Your task to perform on an android device: make emails show in primary in the gmail app Image 0: 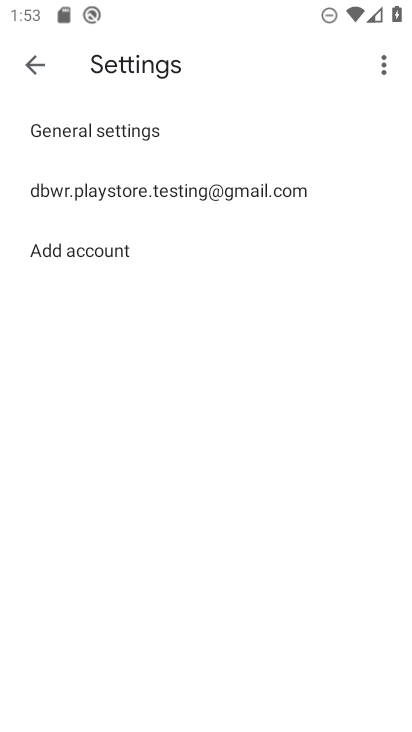
Step 0: press home button
Your task to perform on an android device: make emails show in primary in the gmail app Image 1: 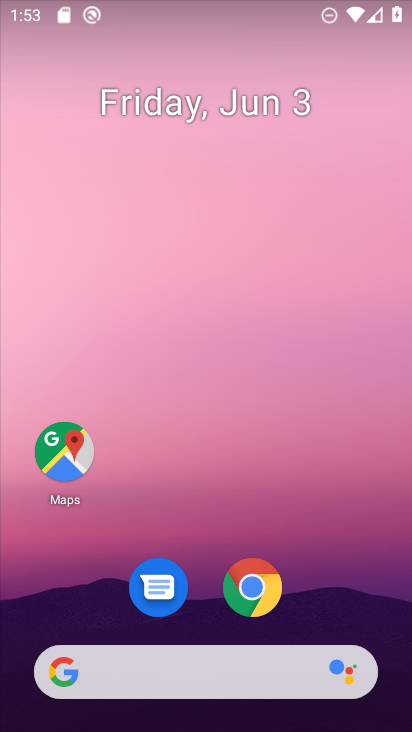
Step 1: drag from (330, 618) to (334, 2)
Your task to perform on an android device: make emails show in primary in the gmail app Image 2: 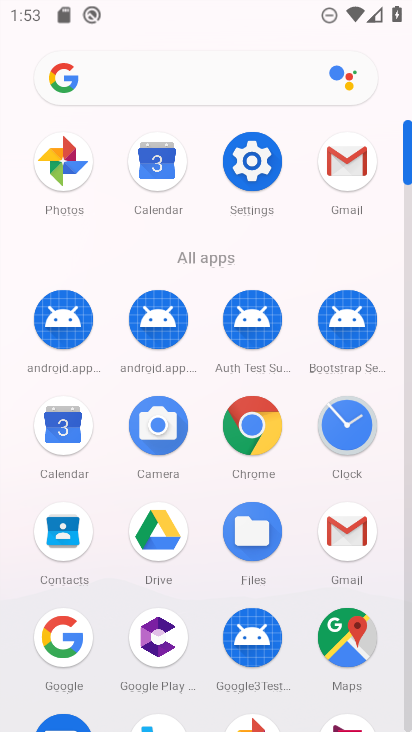
Step 2: click (349, 166)
Your task to perform on an android device: make emails show in primary in the gmail app Image 3: 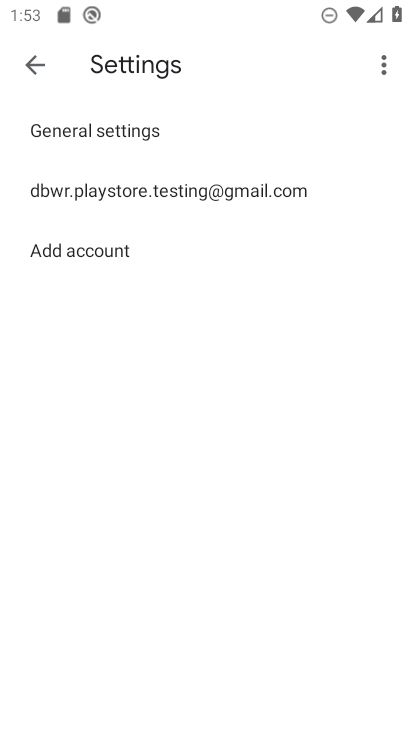
Step 3: click (147, 188)
Your task to perform on an android device: make emails show in primary in the gmail app Image 4: 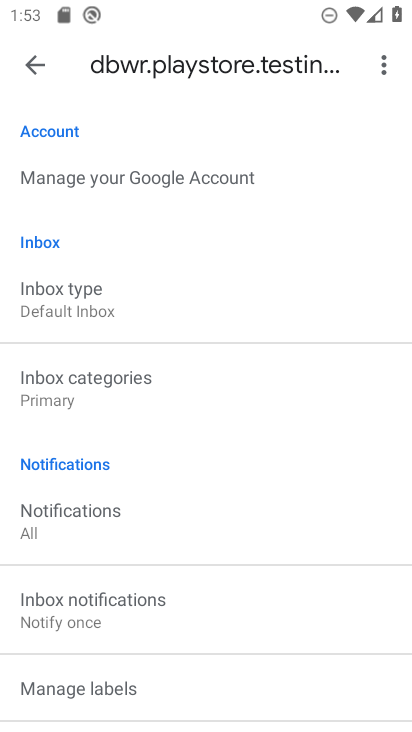
Step 4: click (68, 289)
Your task to perform on an android device: make emails show in primary in the gmail app Image 5: 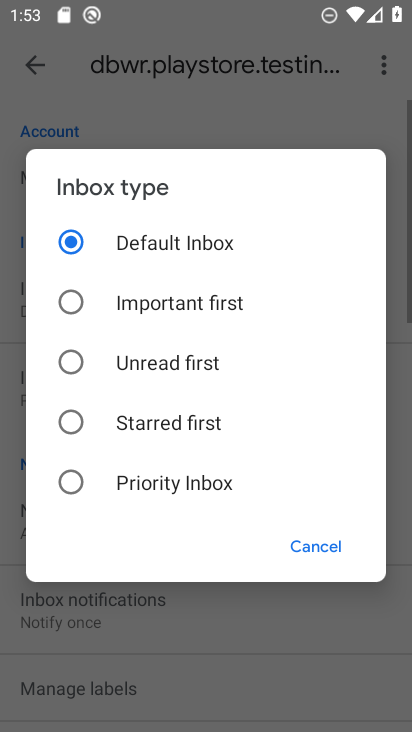
Step 5: click (155, 242)
Your task to perform on an android device: make emails show in primary in the gmail app Image 6: 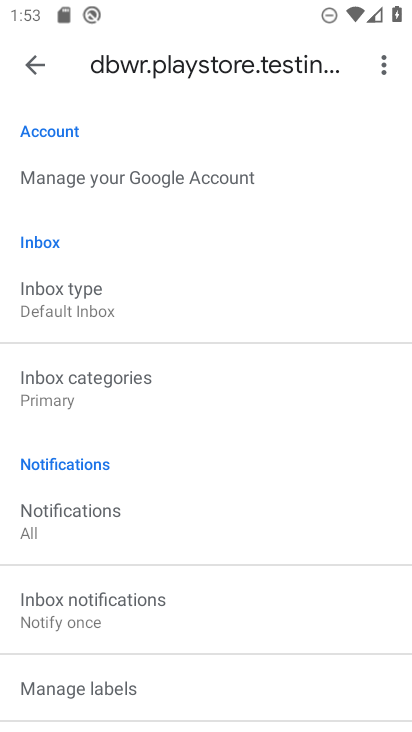
Step 6: task complete